Your task to perform on an android device: Open Reddit.com Image 0: 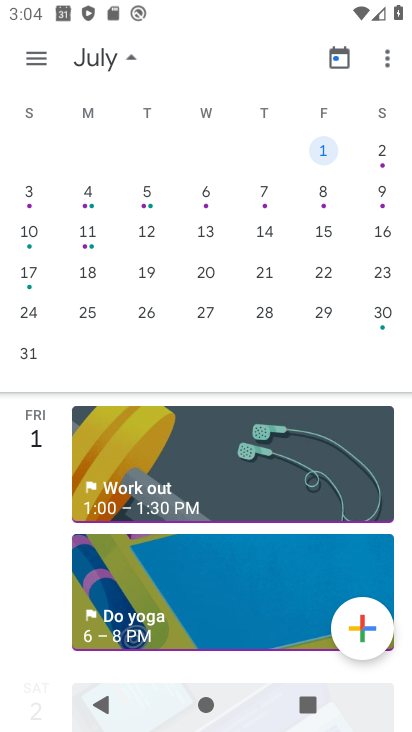
Step 0: press home button
Your task to perform on an android device: Open Reddit.com Image 1: 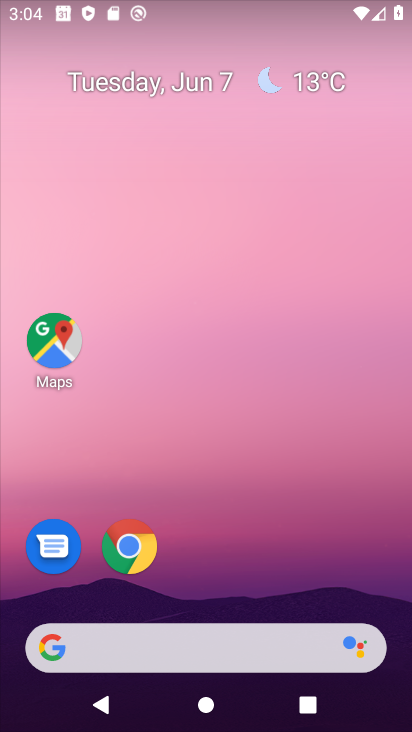
Step 1: click (161, 667)
Your task to perform on an android device: Open Reddit.com Image 2: 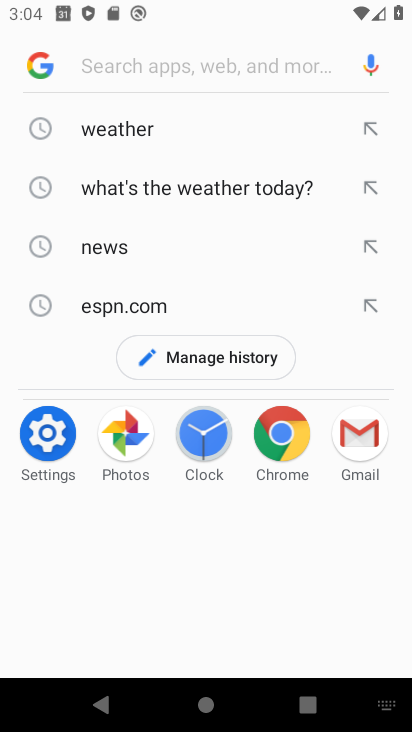
Step 2: type "reddit"
Your task to perform on an android device: Open Reddit.com Image 3: 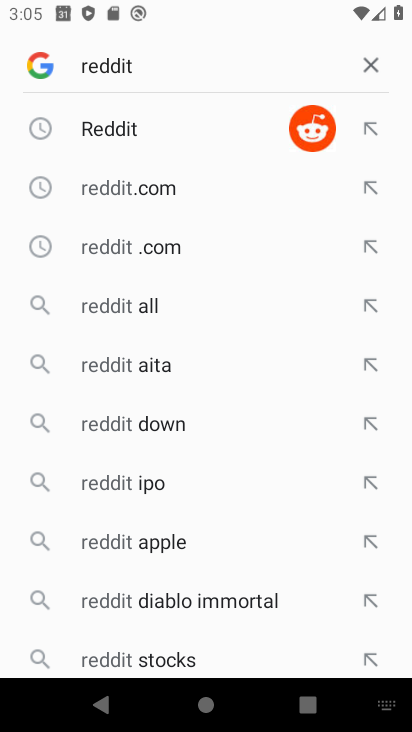
Step 3: click (164, 254)
Your task to perform on an android device: Open Reddit.com Image 4: 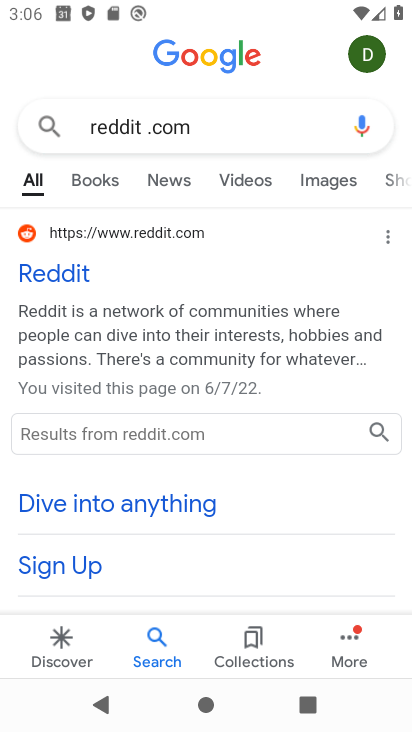
Step 4: task complete